Your task to perform on an android device: Open Yahoo.com Image 0: 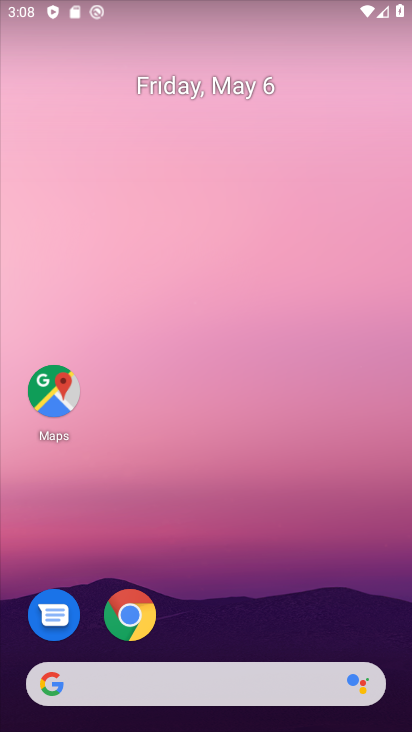
Step 0: click (140, 615)
Your task to perform on an android device: Open Yahoo.com Image 1: 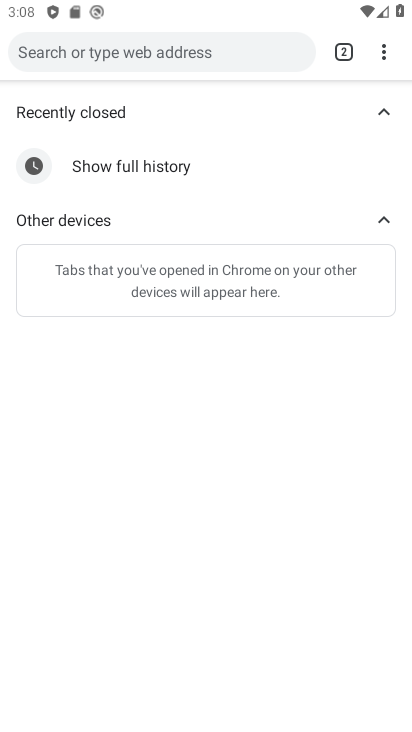
Step 1: click (91, 48)
Your task to perform on an android device: Open Yahoo.com Image 2: 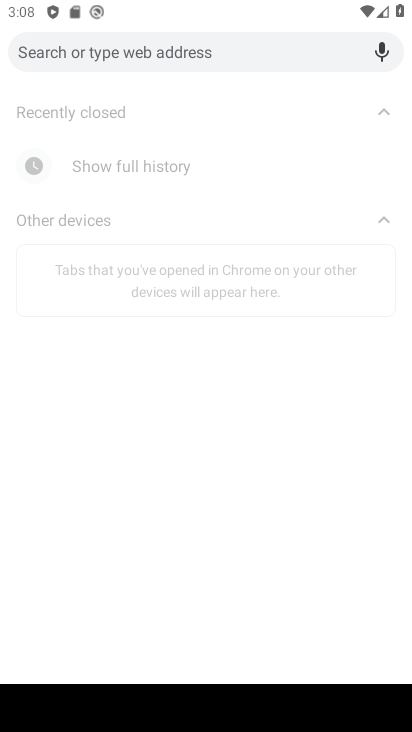
Step 2: type "yahoo.com"
Your task to perform on an android device: Open Yahoo.com Image 3: 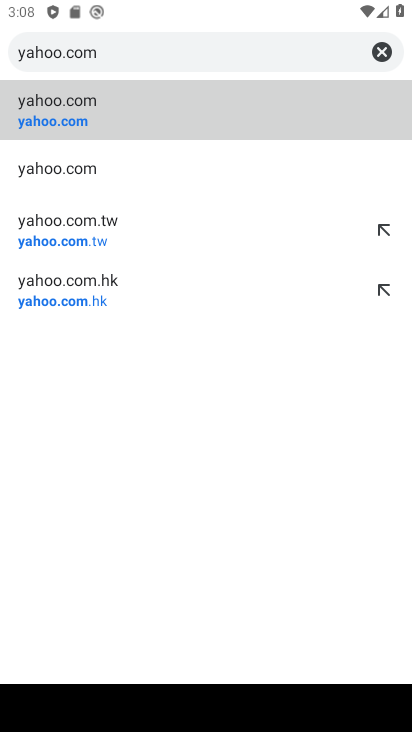
Step 3: click (23, 115)
Your task to perform on an android device: Open Yahoo.com Image 4: 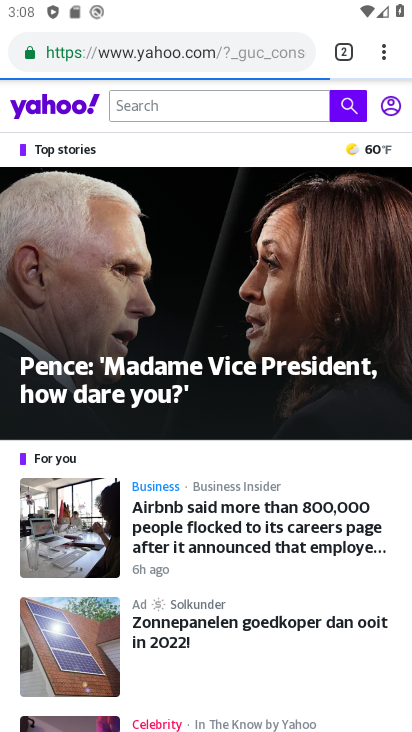
Step 4: task complete